Your task to perform on an android device: Do I have any events today? Image 0: 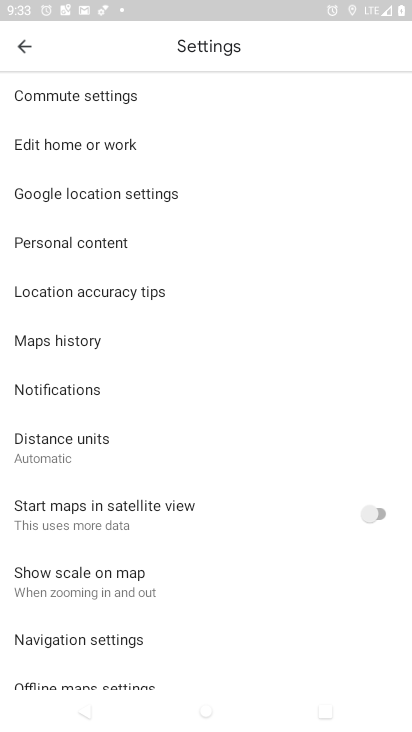
Step 0: press home button
Your task to perform on an android device: Do I have any events today? Image 1: 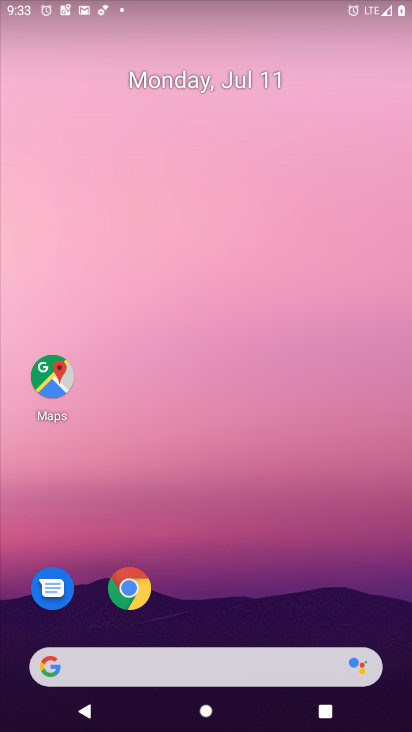
Step 1: drag from (193, 669) to (295, 51)
Your task to perform on an android device: Do I have any events today? Image 2: 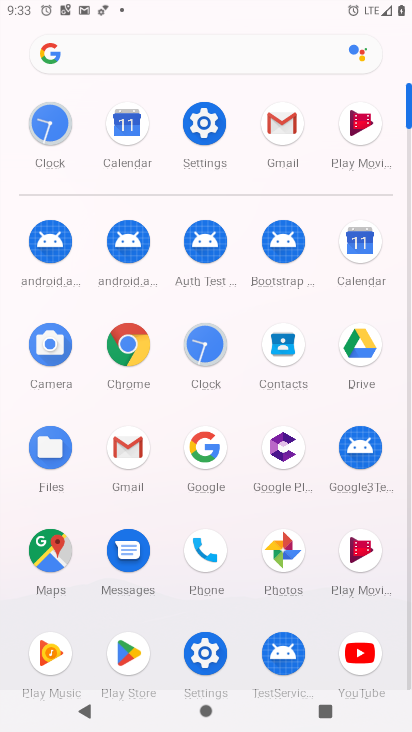
Step 2: click (364, 244)
Your task to perform on an android device: Do I have any events today? Image 3: 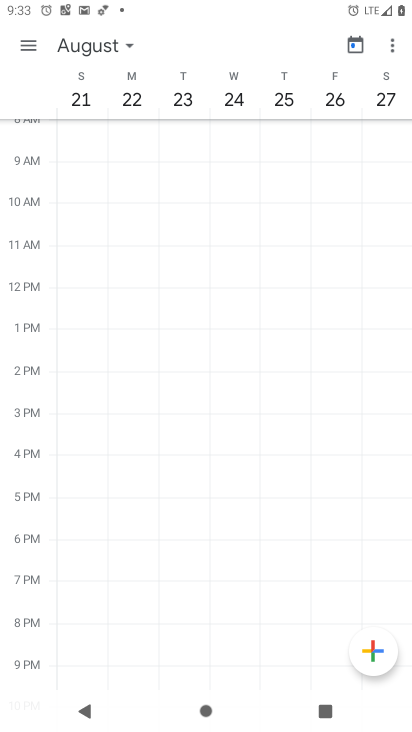
Step 3: click (88, 44)
Your task to perform on an android device: Do I have any events today? Image 4: 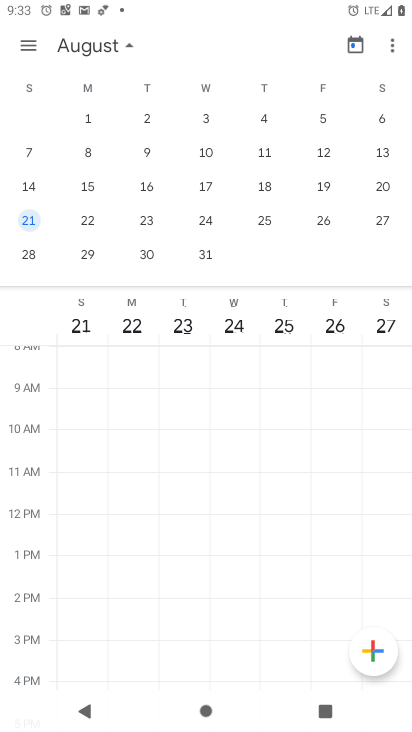
Step 4: drag from (85, 166) to (406, 201)
Your task to perform on an android device: Do I have any events today? Image 5: 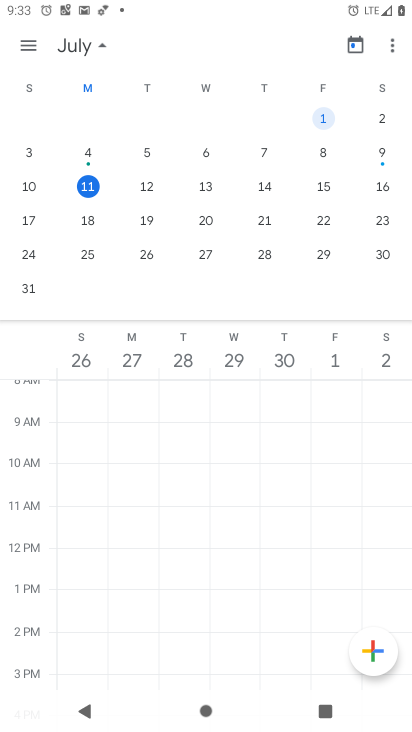
Step 5: click (83, 185)
Your task to perform on an android device: Do I have any events today? Image 6: 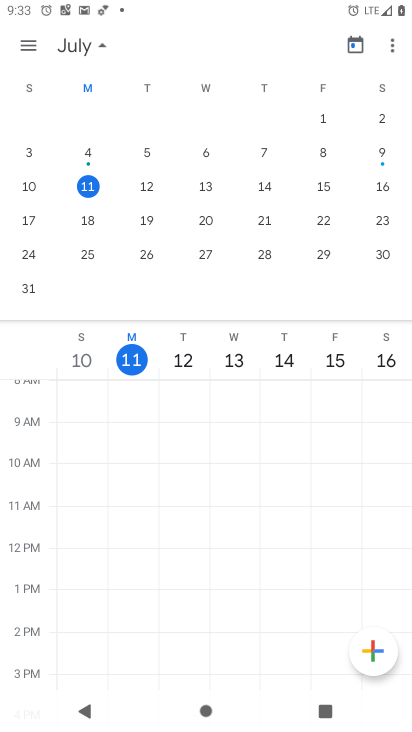
Step 6: click (22, 40)
Your task to perform on an android device: Do I have any events today? Image 7: 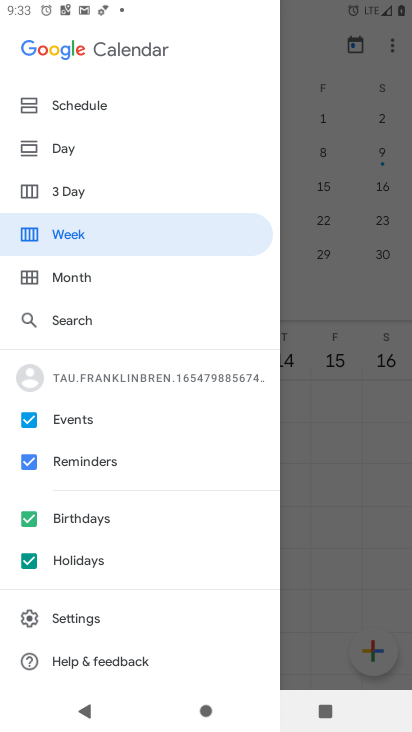
Step 7: click (84, 99)
Your task to perform on an android device: Do I have any events today? Image 8: 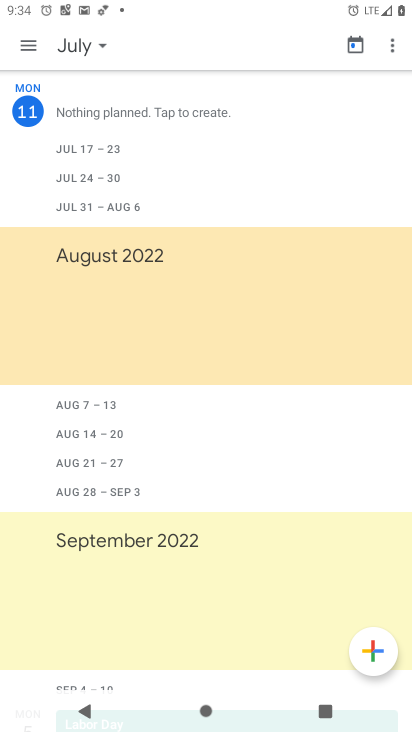
Step 8: task complete